Your task to perform on an android device: clear history in the chrome app Image 0: 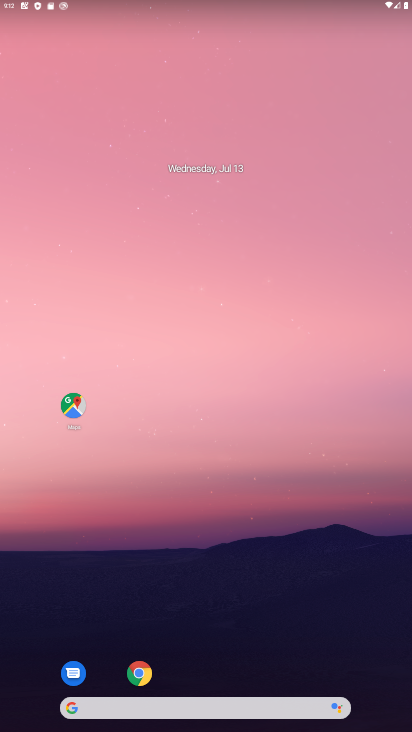
Step 0: click (143, 676)
Your task to perform on an android device: clear history in the chrome app Image 1: 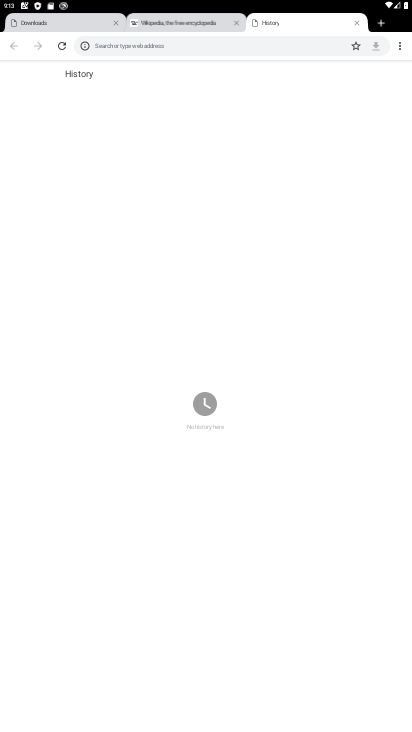
Step 1: task complete